Your task to perform on an android device: Open Reddit.com Image 0: 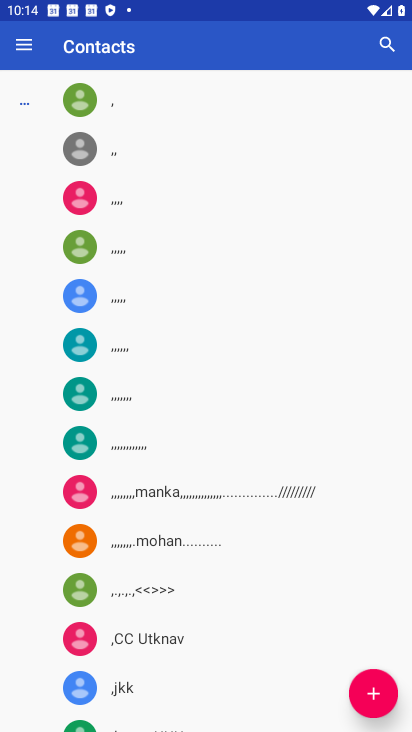
Step 0: press home button
Your task to perform on an android device: Open Reddit.com Image 1: 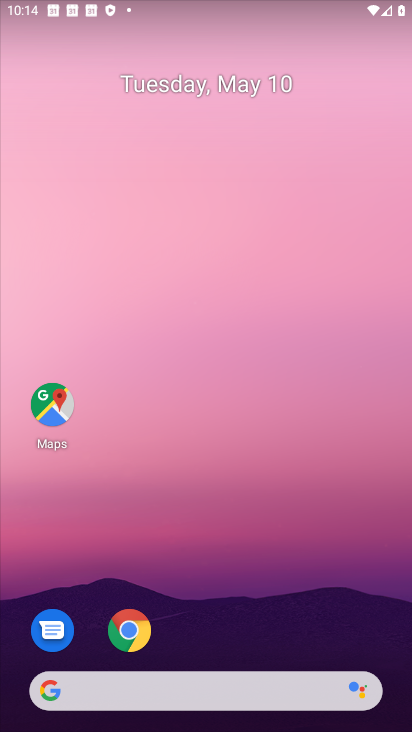
Step 1: click (297, 688)
Your task to perform on an android device: Open Reddit.com Image 2: 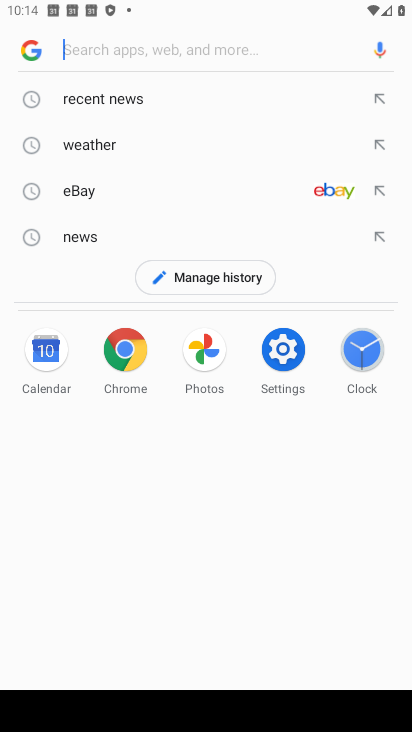
Step 2: type "reddit.com"
Your task to perform on an android device: Open Reddit.com Image 3: 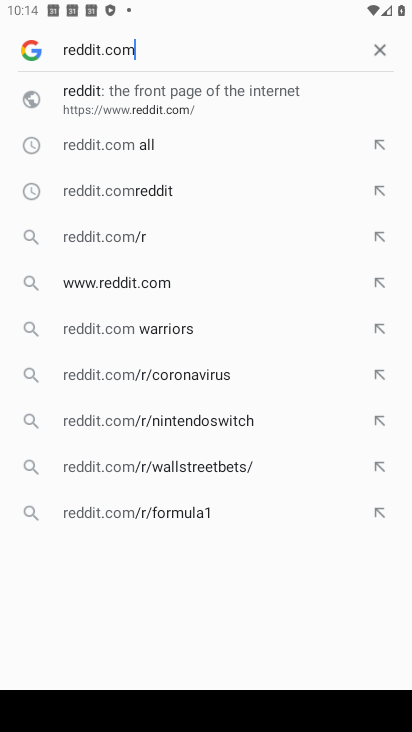
Step 3: click (161, 96)
Your task to perform on an android device: Open Reddit.com Image 4: 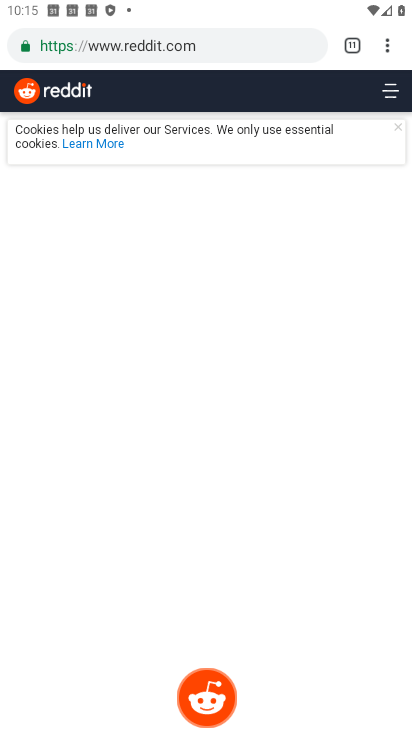
Step 4: task complete